Your task to perform on an android device: Open my contact list Image 0: 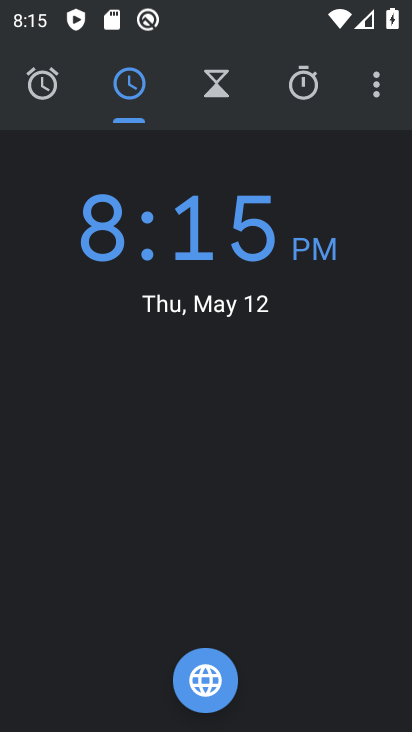
Step 0: press home button
Your task to perform on an android device: Open my contact list Image 1: 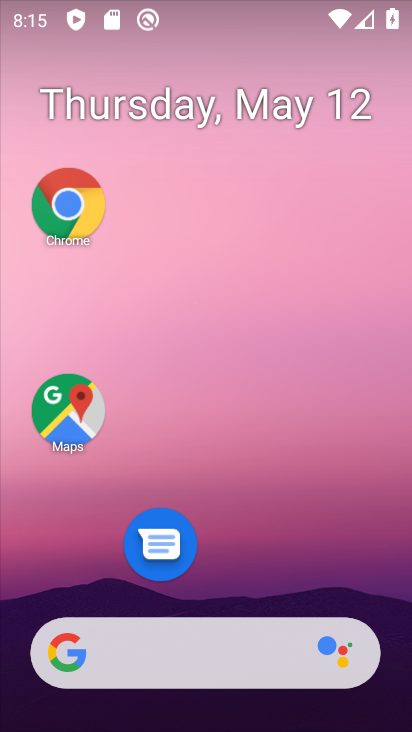
Step 1: drag from (211, 608) to (390, 560)
Your task to perform on an android device: Open my contact list Image 2: 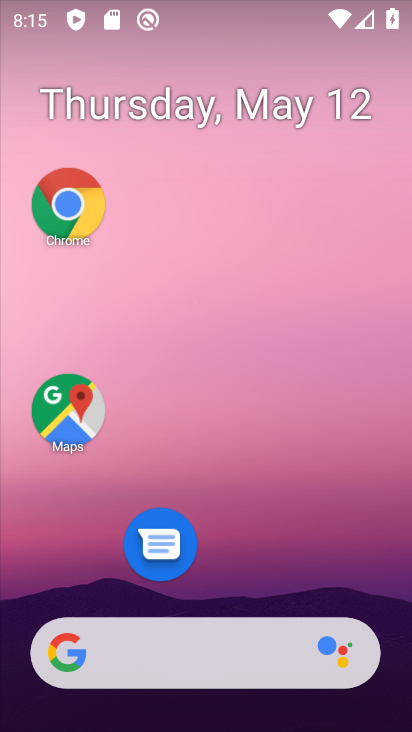
Step 2: drag from (236, 607) to (305, 84)
Your task to perform on an android device: Open my contact list Image 3: 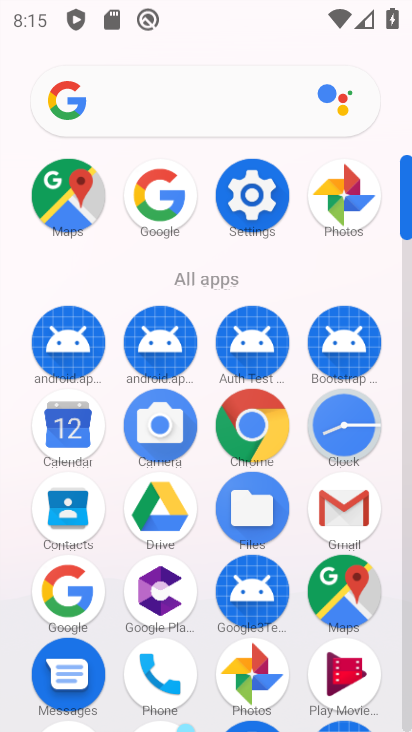
Step 3: click (160, 660)
Your task to perform on an android device: Open my contact list Image 4: 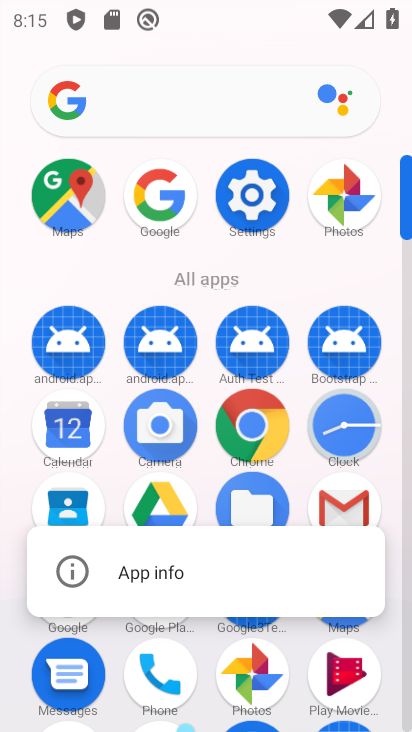
Step 4: click (145, 671)
Your task to perform on an android device: Open my contact list Image 5: 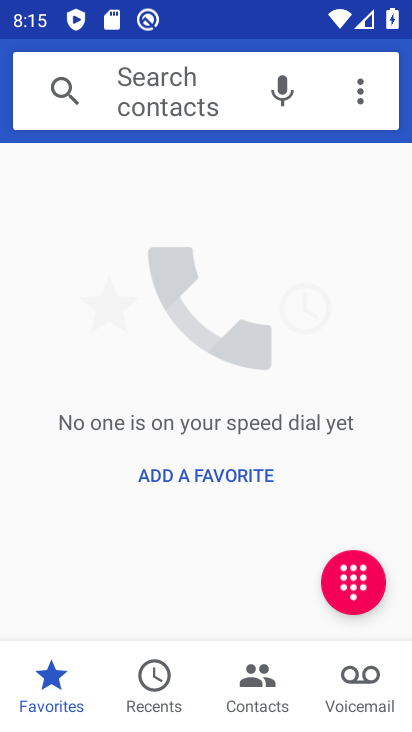
Step 5: click (269, 678)
Your task to perform on an android device: Open my contact list Image 6: 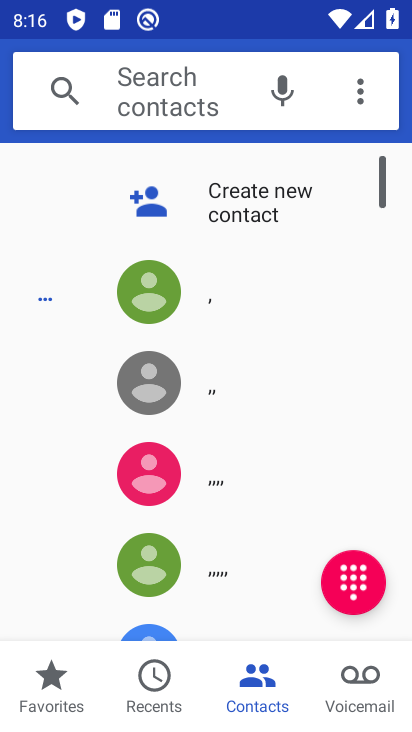
Step 6: task complete